Your task to perform on an android device: turn off notifications in google photos Image 0: 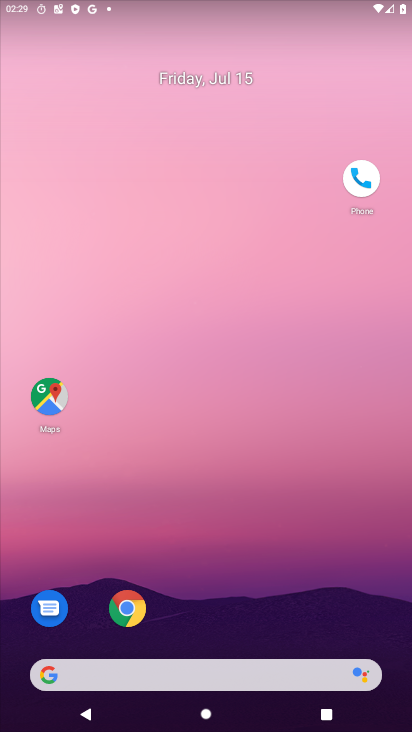
Step 0: drag from (199, 621) to (258, 200)
Your task to perform on an android device: turn off notifications in google photos Image 1: 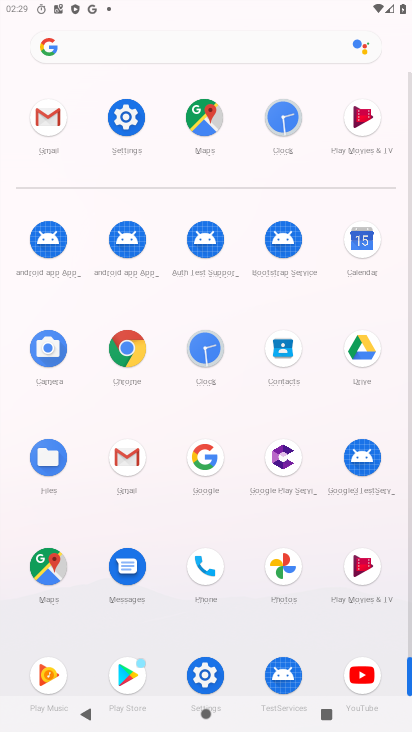
Step 1: click (288, 574)
Your task to perform on an android device: turn off notifications in google photos Image 2: 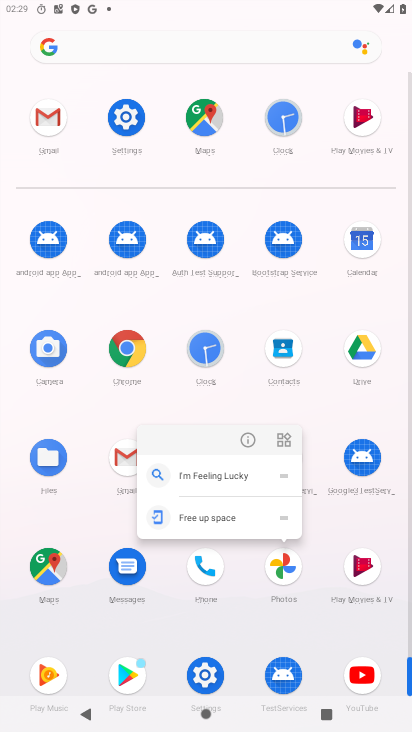
Step 2: click (240, 443)
Your task to perform on an android device: turn off notifications in google photos Image 3: 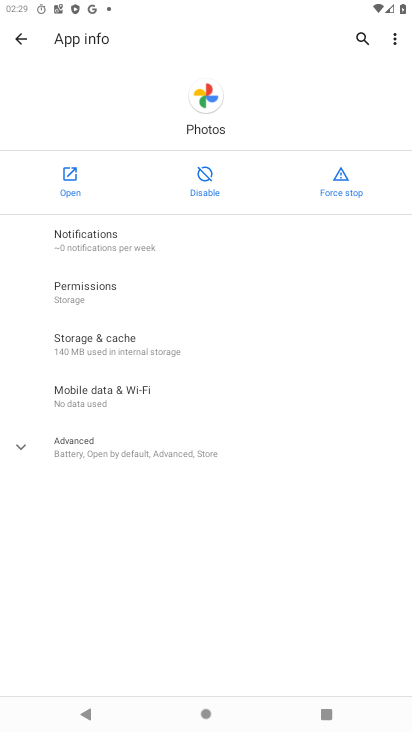
Step 3: click (81, 166)
Your task to perform on an android device: turn off notifications in google photos Image 4: 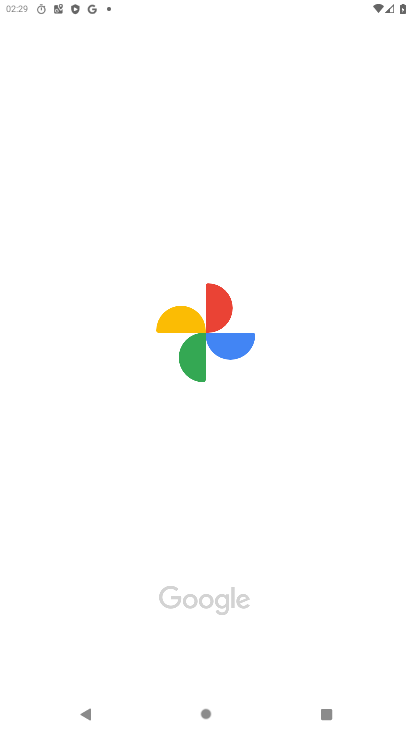
Step 4: drag from (186, 580) to (214, 343)
Your task to perform on an android device: turn off notifications in google photos Image 5: 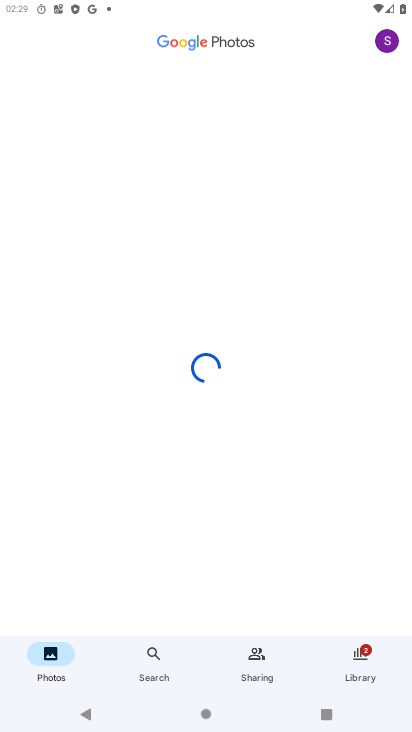
Step 5: drag from (209, 532) to (226, 306)
Your task to perform on an android device: turn off notifications in google photos Image 6: 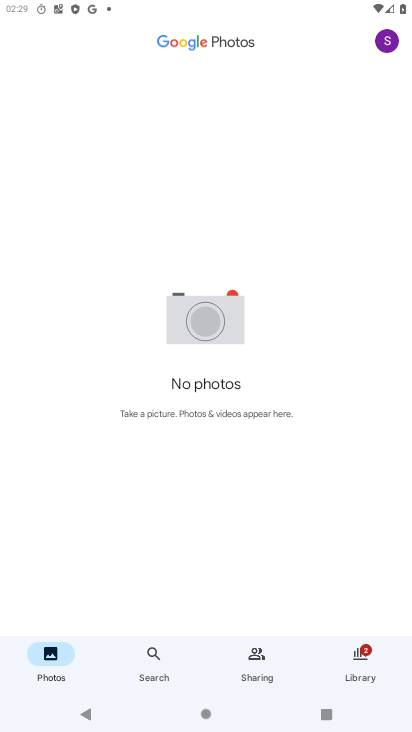
Step 6: click (388, 42)
Your task to perform on an android device: turn off notifications in google photos Image 7: 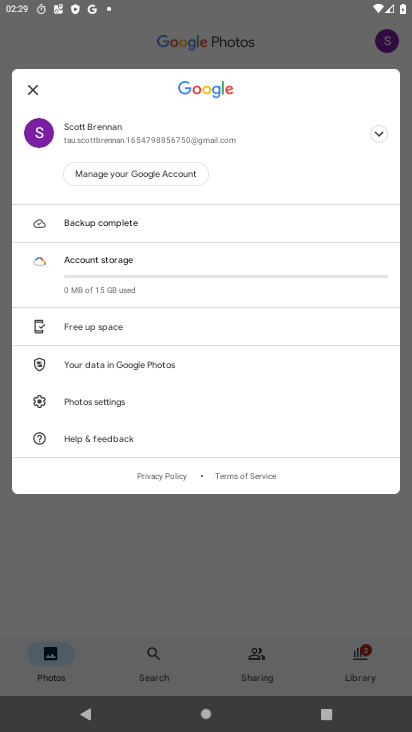
Step 7: click (78, 399)
Your task to perform on an android device: turn off notifications in google photos Image 8: 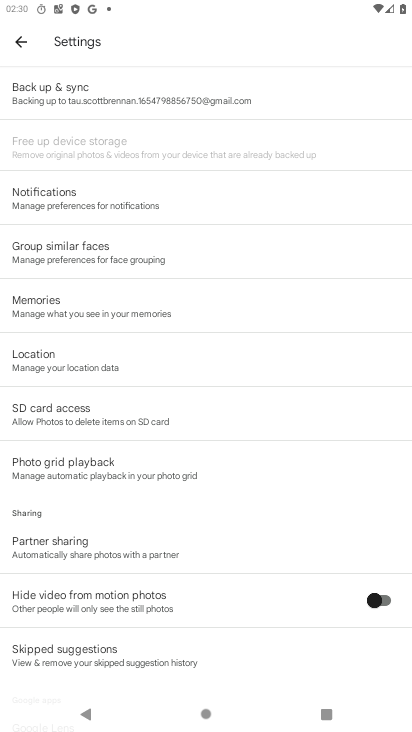
Step 8: drag from (219, 533) to (226, 310)
Your task to perform on an android device: turn off notifications in google photos Image 9: 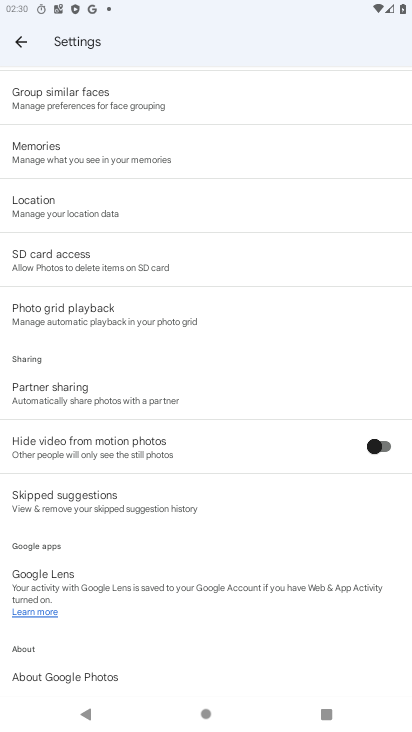
Step 9: drag from (159, 134) to (100, 541)
Your task to perform on an android device: turn off notifications in google photos Image 10: 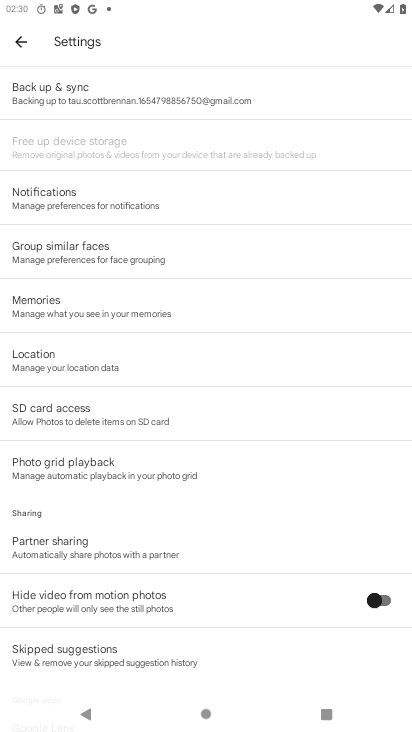
Step 10: click (140, 208)
Your task to perform on an android device: turn off notifications in google photos Image 11: 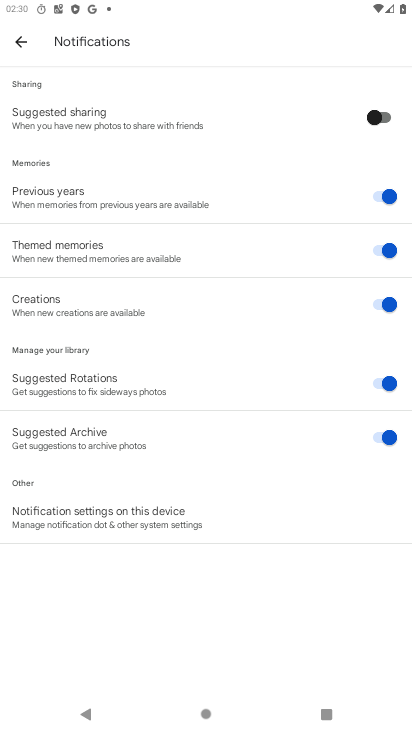
Step 11: click (123, 515)
Your task to perform on an android device: turn off notifications in google photos Image 12: 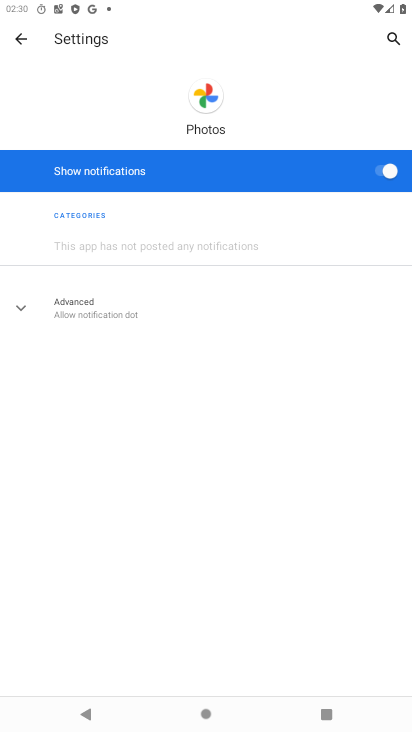
Step 12: click (378, 172)
Your task to perform on an android device: turn off notifications in google photos Image 13: 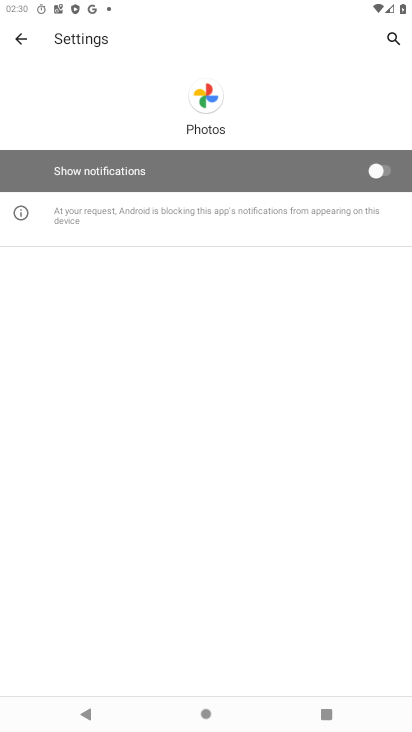
Step 13: task complete